Your task to perform on an android device: Search for sushi restaurants on Maps Image 0: 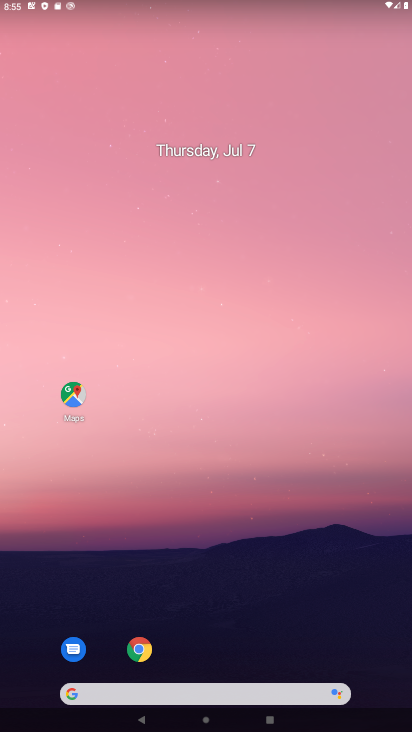
Step 0: drag from (228, 730) to (246, 35)
Your task to perform on an android device: Search for sushi restaurants on Maps Image 1: 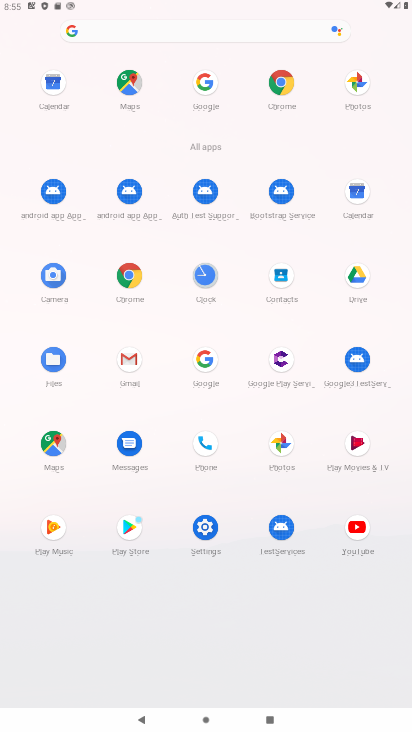
Step 1: click (50, 435)
Your task to perform on an android device: Search for sushi restaurants on Maps Image 2: 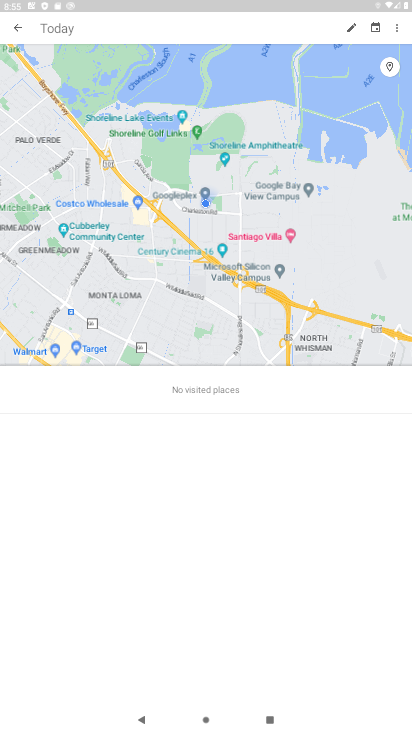
Step 2: click (19, 22)
Your task to perform on an android device: Search for sushi restaurants on Maps Image 3: 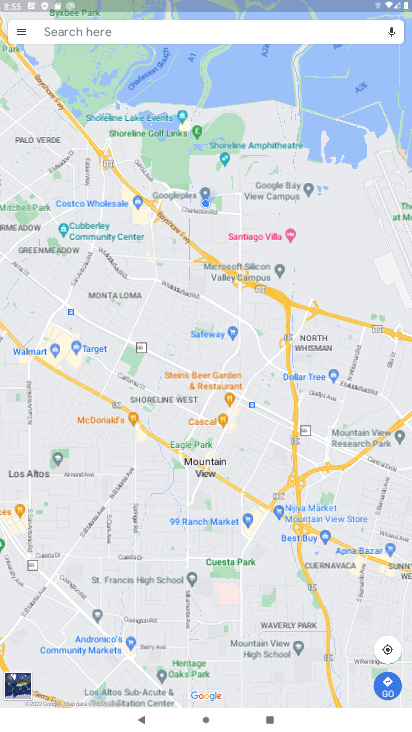
Step 3: click (173, 31)
Your task to perform on an android device: Search for sushi restaurants on Maps Image 4: 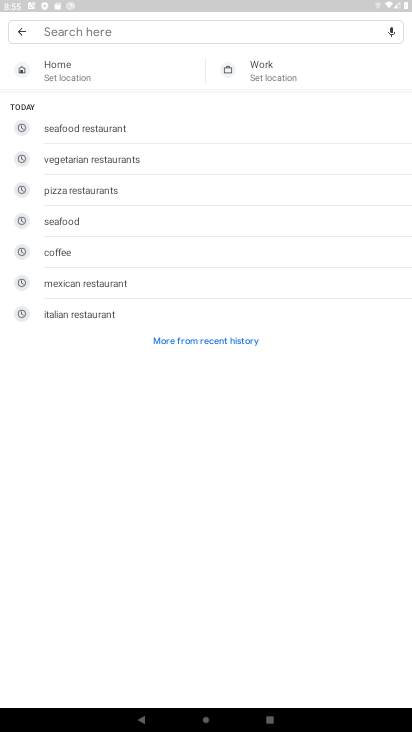
Step 4: type "sushi  restaurants"
Your task to perform on an android device: Search for sushi restaurants on Maps Image 5: 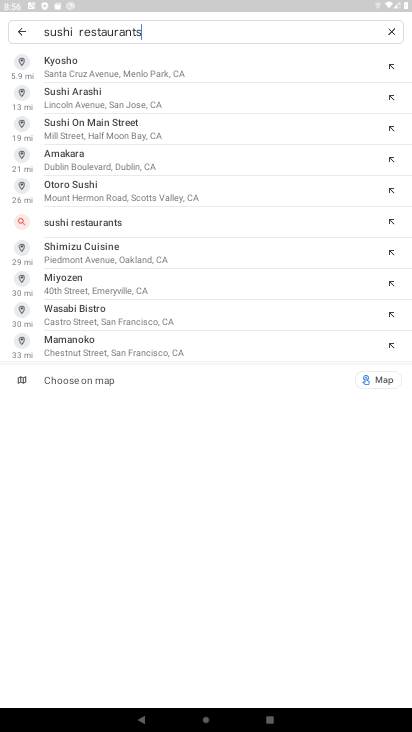
Step 5: click (116, 220)
Your task to perform on an android device: Search for sushi restaurants on Maps Image 6: 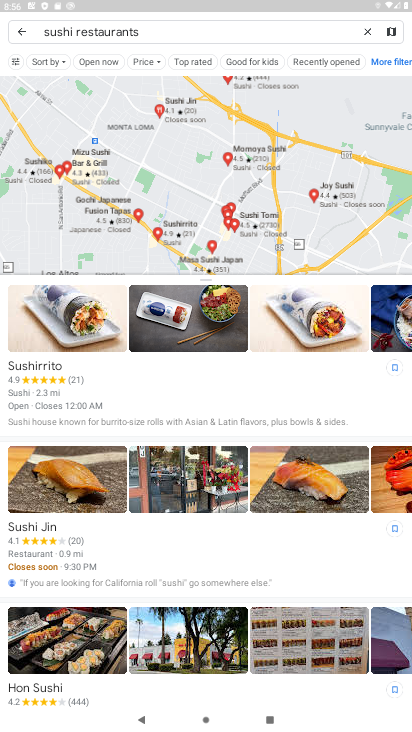
Step 6: task complete